Your task to perform on an android device: turn off priority inbox in the gmail app Image 0: 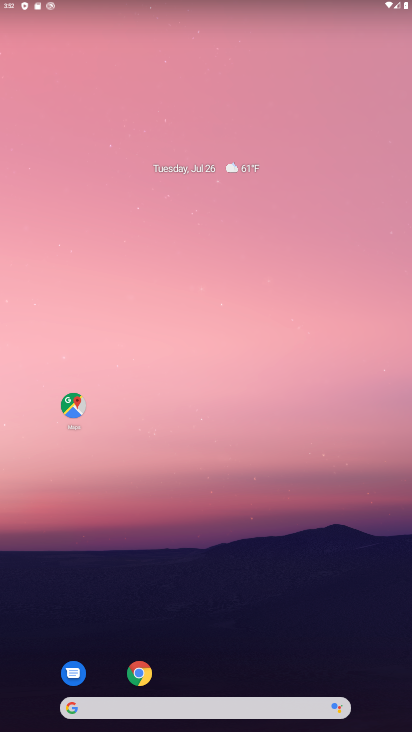
Step 0: drag from (211, 675) to (233, 115)
Your task to perform on an android device: turn off priority inbox in the gmail app Image 1: 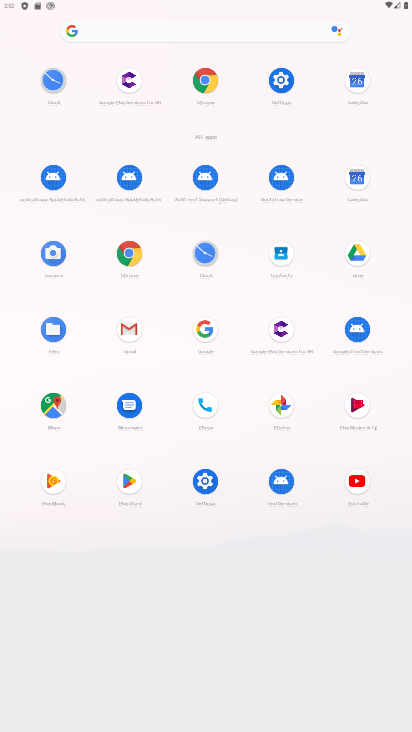
Step 1: click (126, 320)
Your task to perform on an android device: turn off priority inbox in the gmail app Image 2: 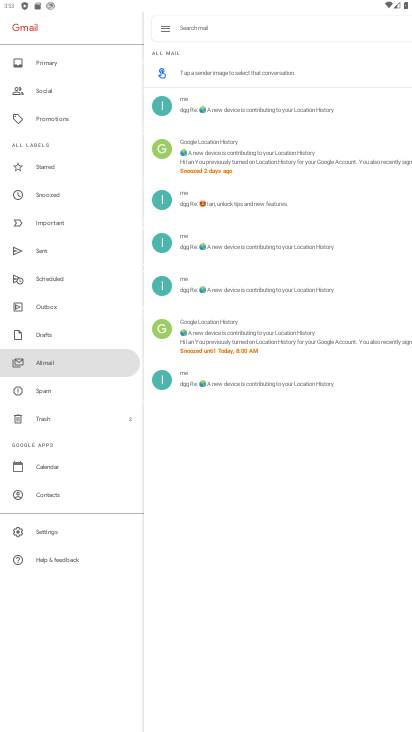
Step 2: click (54, 531)
Your task to perform on an android device: turn off priority inbox in the gmail app Image 3: 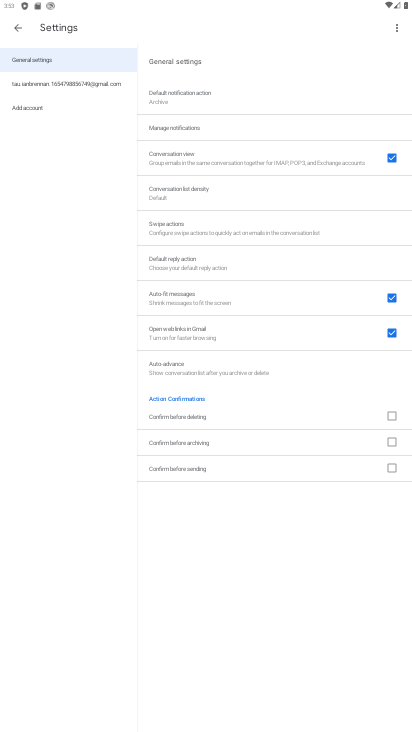
Step 3: click (74, 81)
Your task to perform on an android device: turn off priority inbox in the gmail app Image 4: 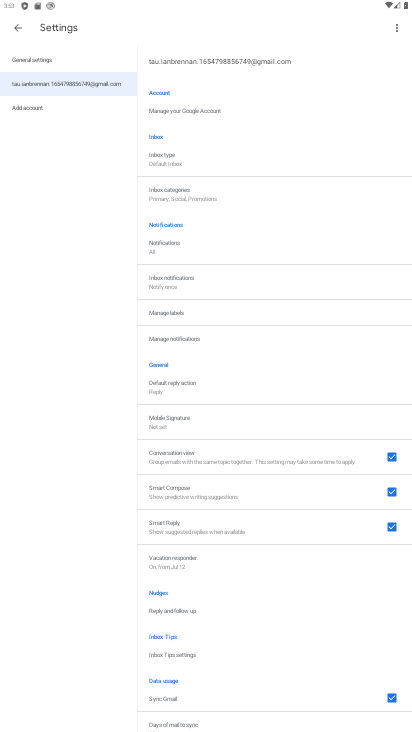
Step 4: click (185, 154)
Your task to perform on an android device: turn off priority inbox in the gmail app Image 5: 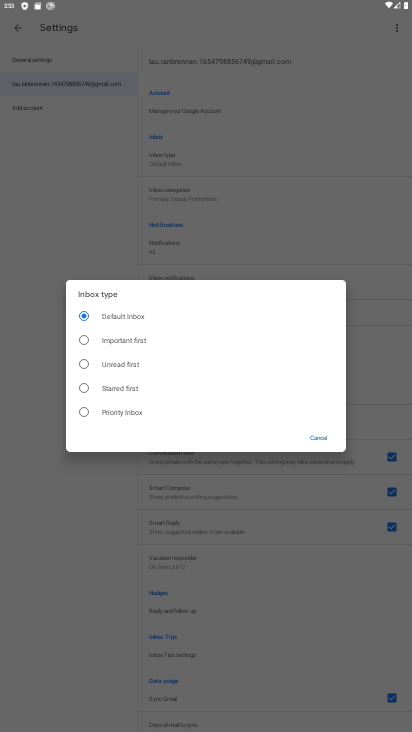
Step 5: click (83, 378)
Your task to perform on an android device: turn off priority inbox in the gmail app Image 6: 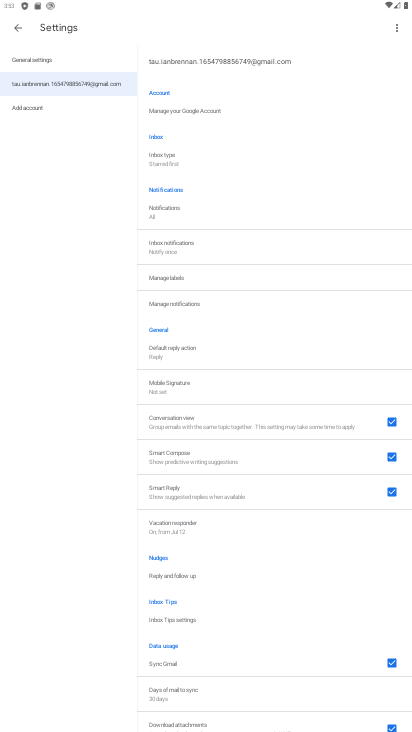
Step 6: task complete